Your task to perform on an android device: turn on priority inbox in the gmail app Image 0: 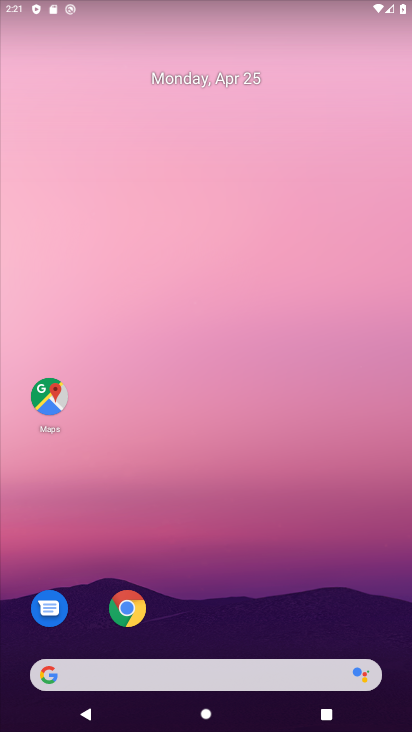
Step 0: drag from (306, 581) to (318, 185)
Your task to perform on an android device: turn on priority inbox in the gmail app Image 1: 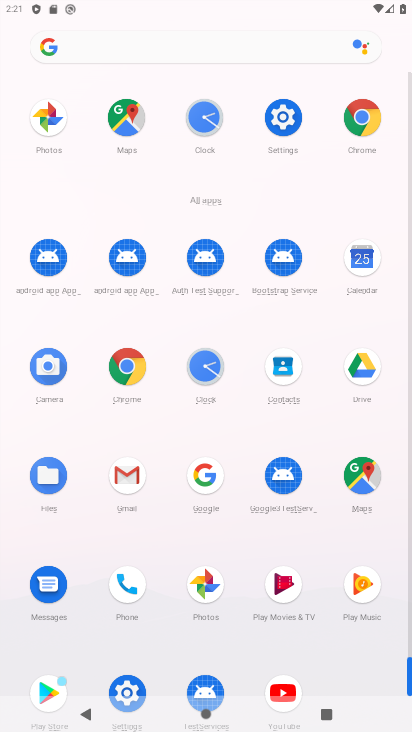
Step 1: click (131, 488)
Your task to perform on an android device: turn on priority inbox in the gmail app Image 2: 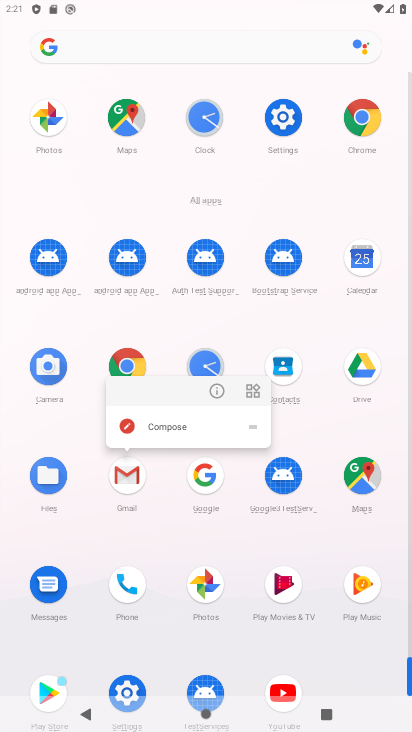
Step 2: click (131, 488)
Your task to perform on an android device: turn on priority inbox in the gmail app Image 3: 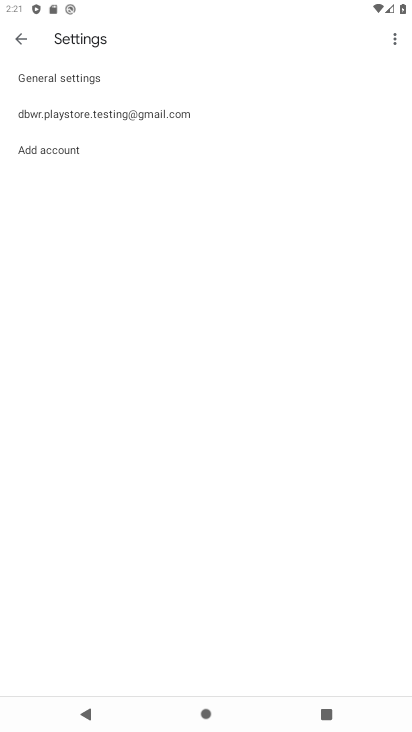
Step 3: click (23, 37)
Your task to perform on an android device: turn on priority inbox in the gmail app Image 4: 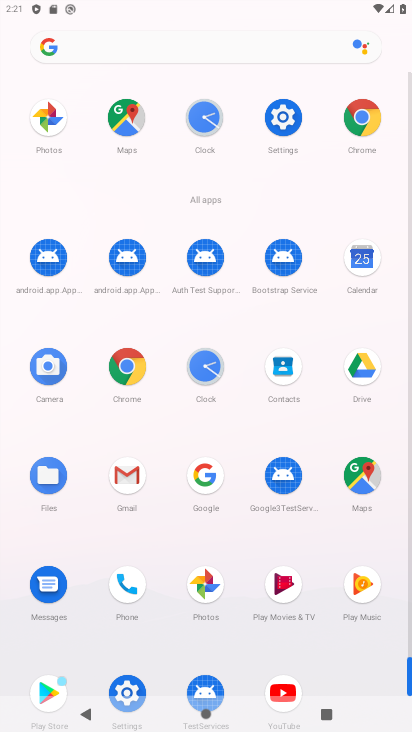
Step 4: click (120, 472)
Your task to perform on an android device: turn on priority inbox in the gmail app Image 5: 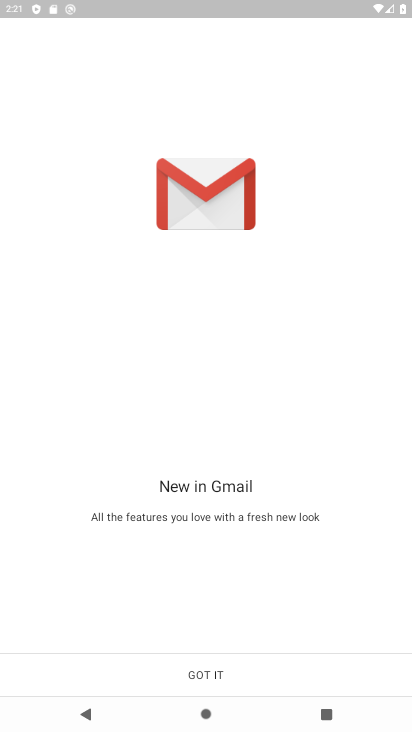
Step 5: click (216, 663)
Your task to perform on an android device: turn on priority inbox in the gmail app Image 6: 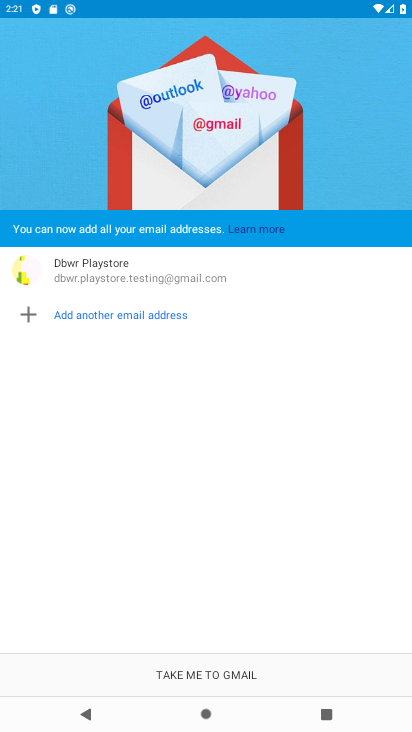
Step 6: click (220, 663)
Your task to perform on an android device: turn on priority inbox in the gmail app Image 7: 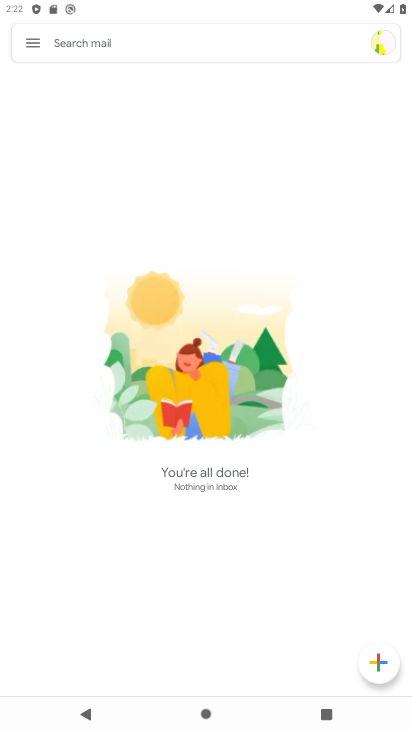
Step 7: click (36, 41)
Your task to perform on an android device: turn on priority inbox in the gmail app Image 8: 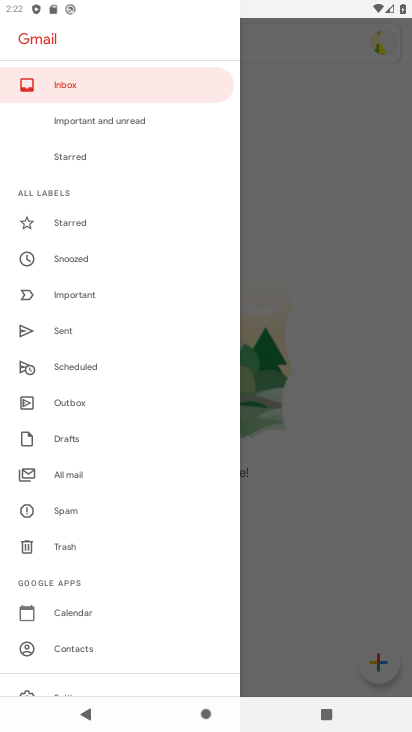
Step 8: drag from (150, 542) to (136, 410)
Your task to perform on an android device: turn on priority inbox in the gmail app Image 9: 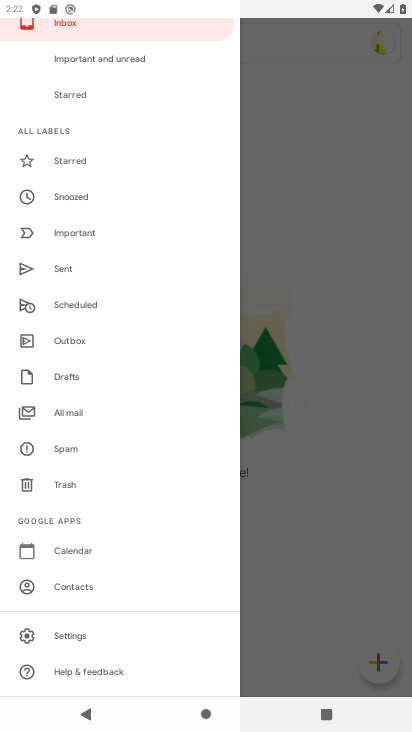
Step 9: drag from (169, 541) to (170, 422)
Your task to perform on an android device: turn on priority inbox in the gmail app Image 10: 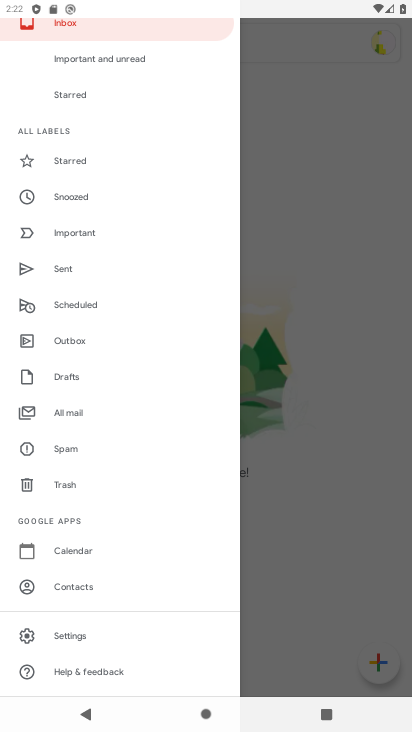
Step 10: drag from (162, 602) to (183, 427)
Your task to perform on an android device: turn on priority inbox in the gmail app Image 11: 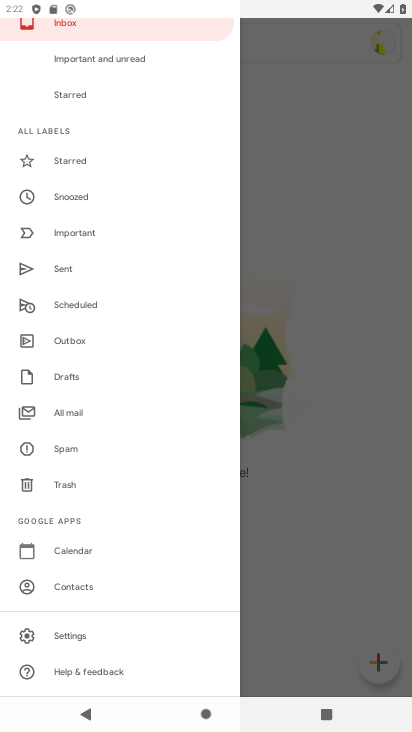
Step 11: click (95, 634)
Your task to perform on an android device: turn on priority inbox in the gmail app Image 12: 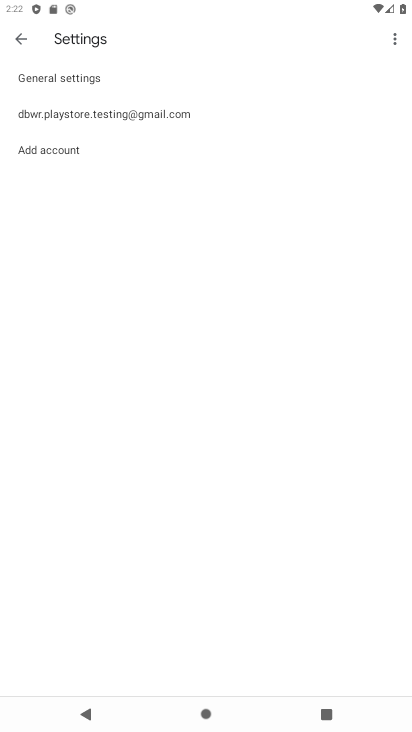
Step 12: click (63, 112)
Your task to perform on an android device: turn on priority inbox in the gmail app Image 13: 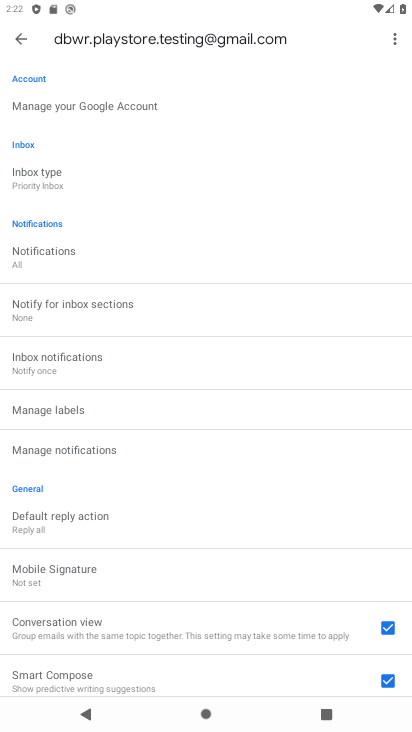
Step 13: click (55, 190)
Your task to perform on an android device: turn on priority inbox in the gmail app Image 14: 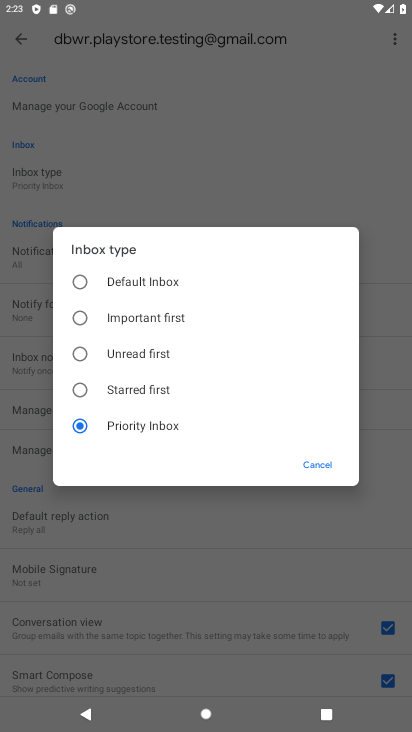
Step 14: task complete